Your task to perform on an android device: Go to CNN.com Image 0: 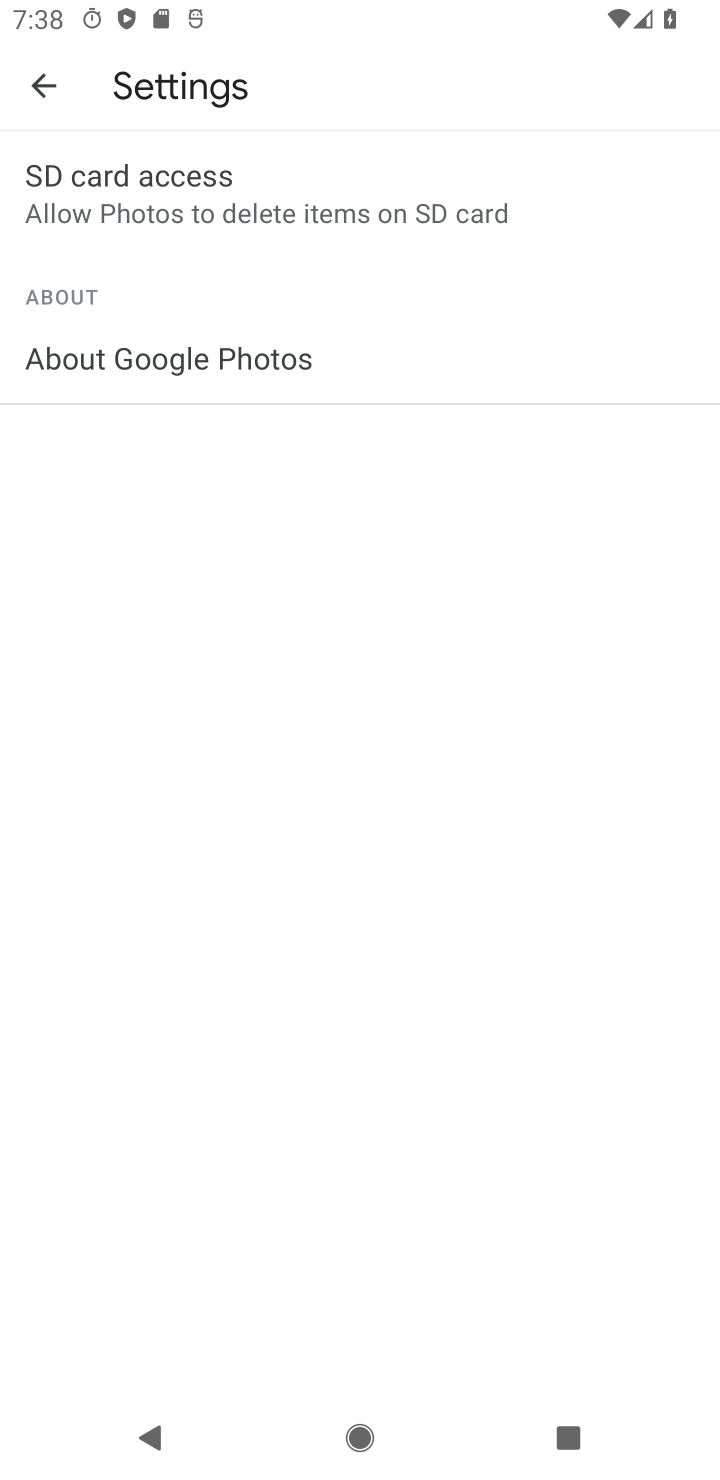
Step 0: press home button
Your task to perform on an android device: Go to CNN.com Image 1: 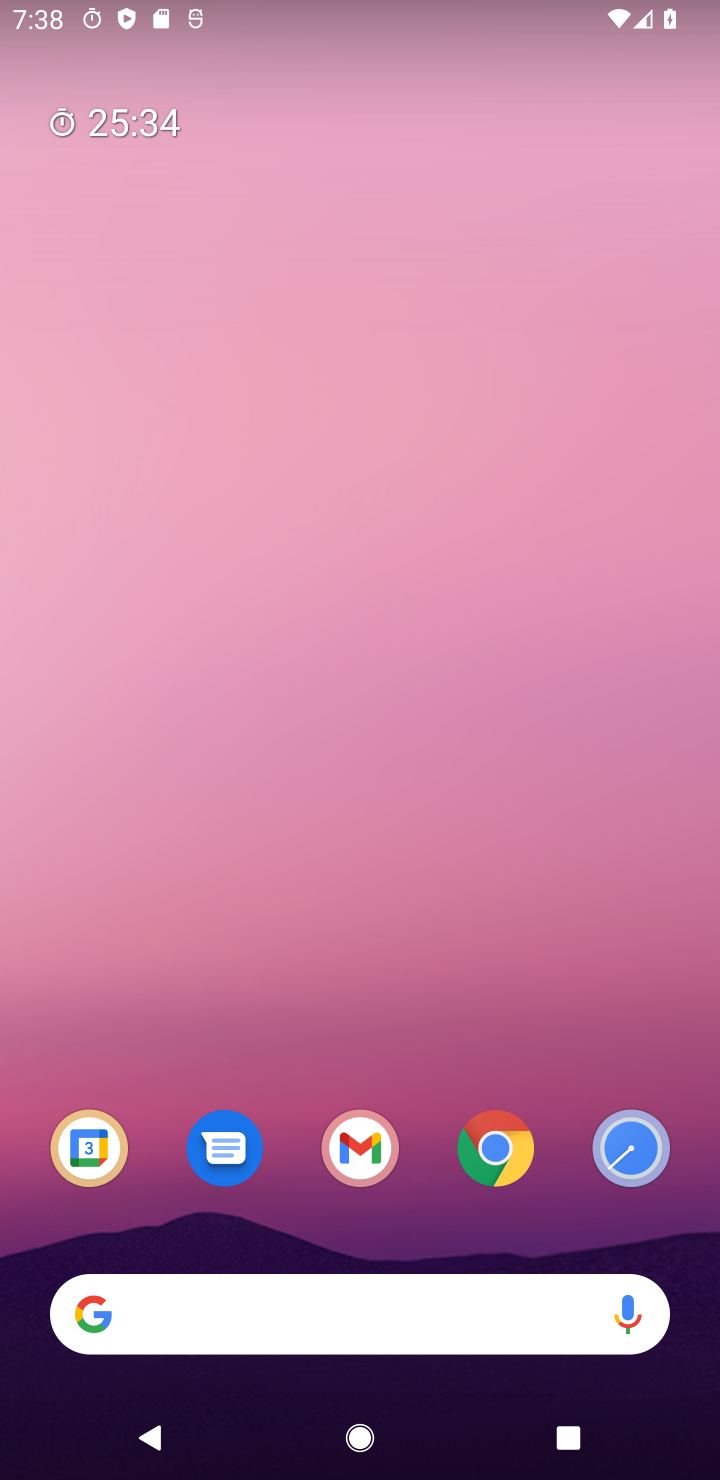
Step 1: click (488, 1164)
Your task to perform on an android device: Go to CNN.com Image 2: 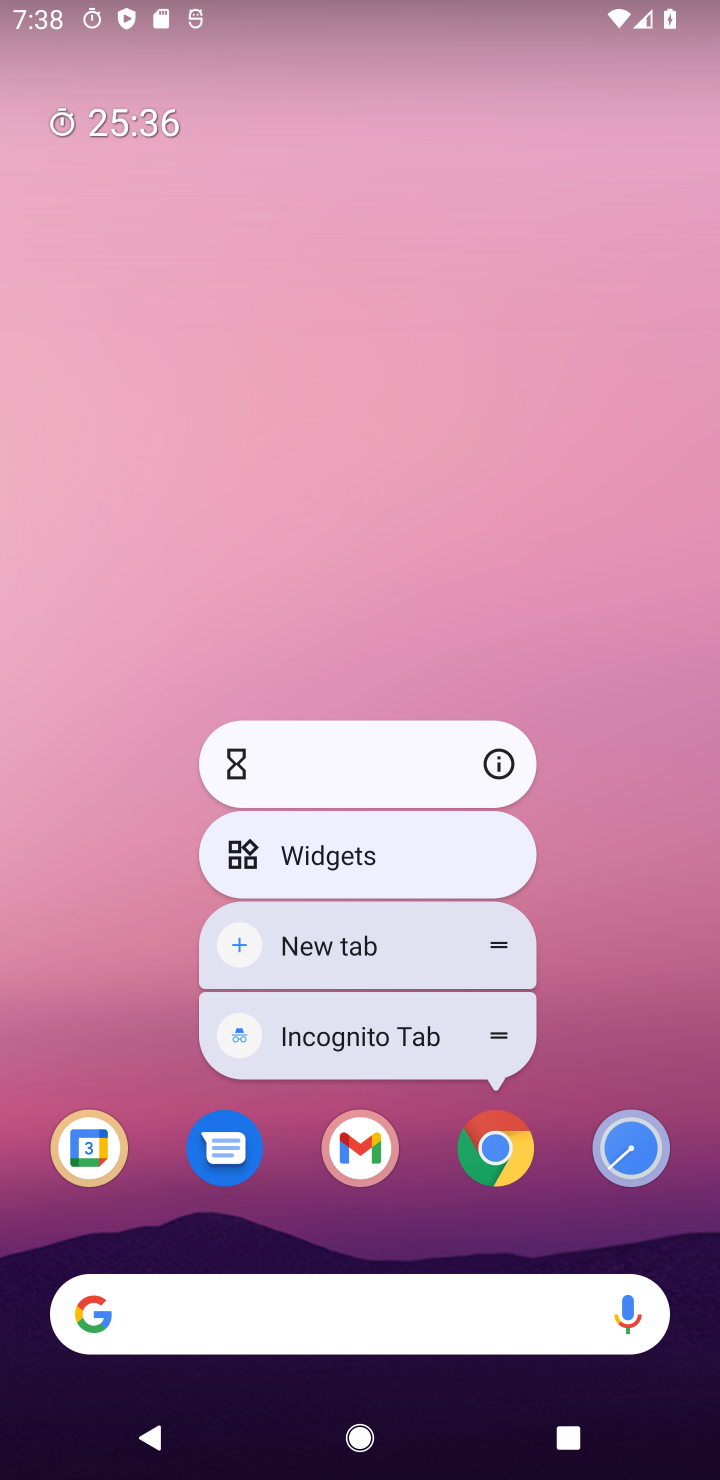
Step 2: click (488, 1164)
Your task to perform on an android device: Go to CNN.com Image 3: 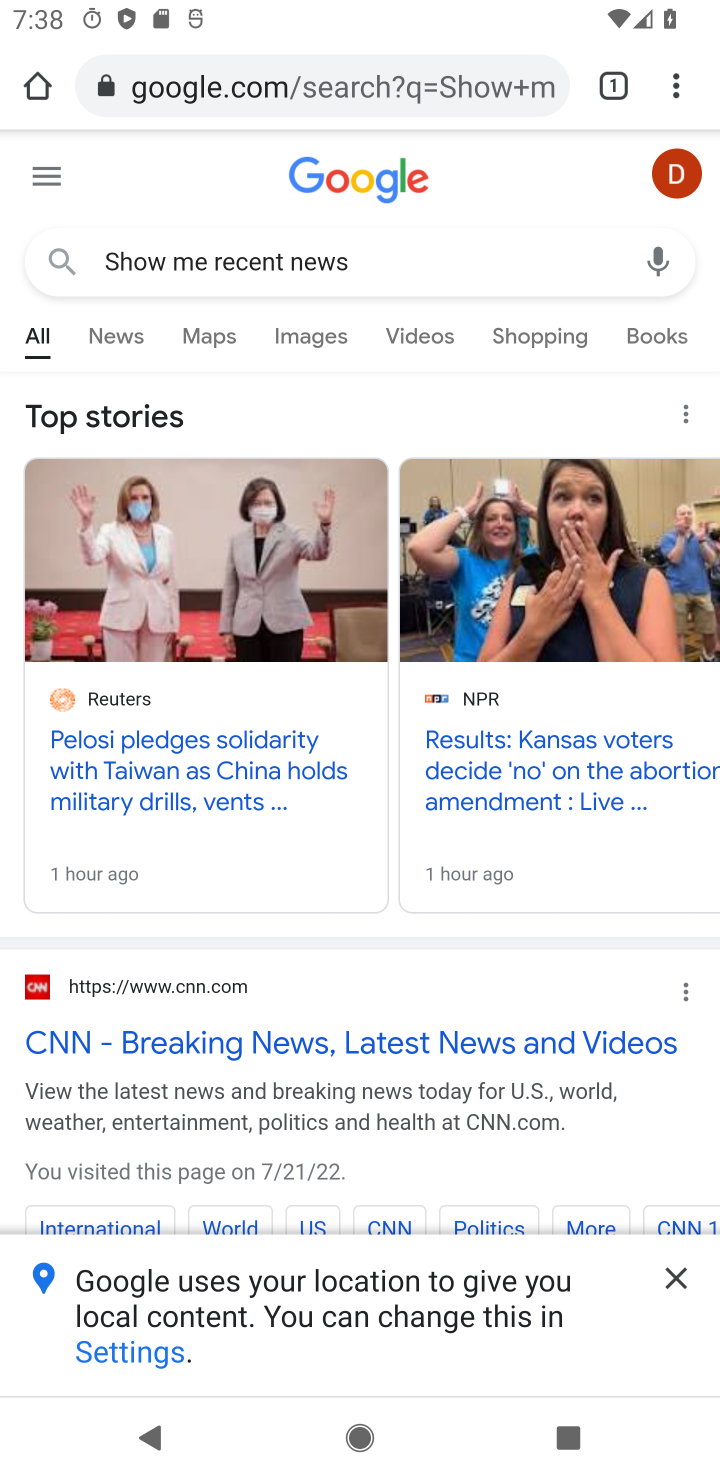
Step 3: click (247, 100)
Your task to perform on an android device: Go to CNN.com Image 4: 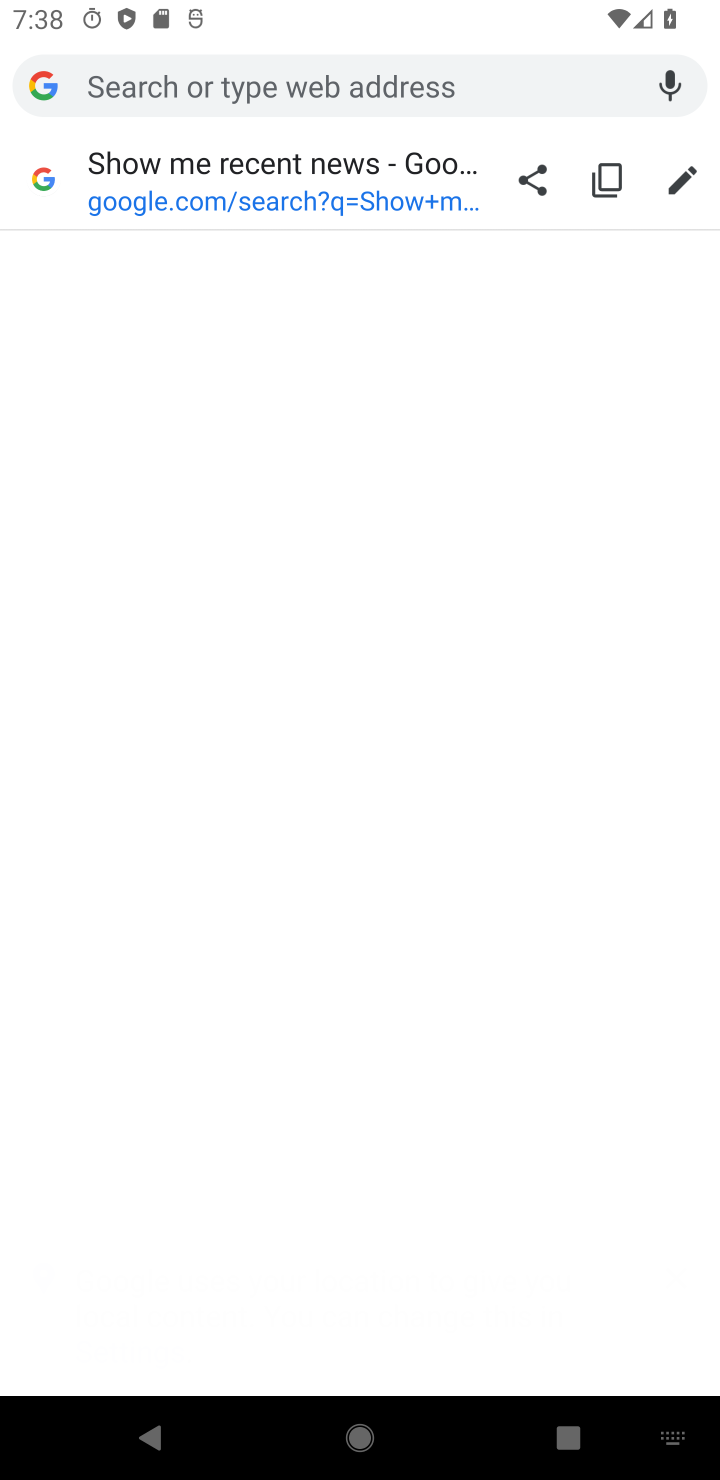
Step 4: type "CNN.com"
Your task to perform on an android device: Go to CNN.com Image 5: 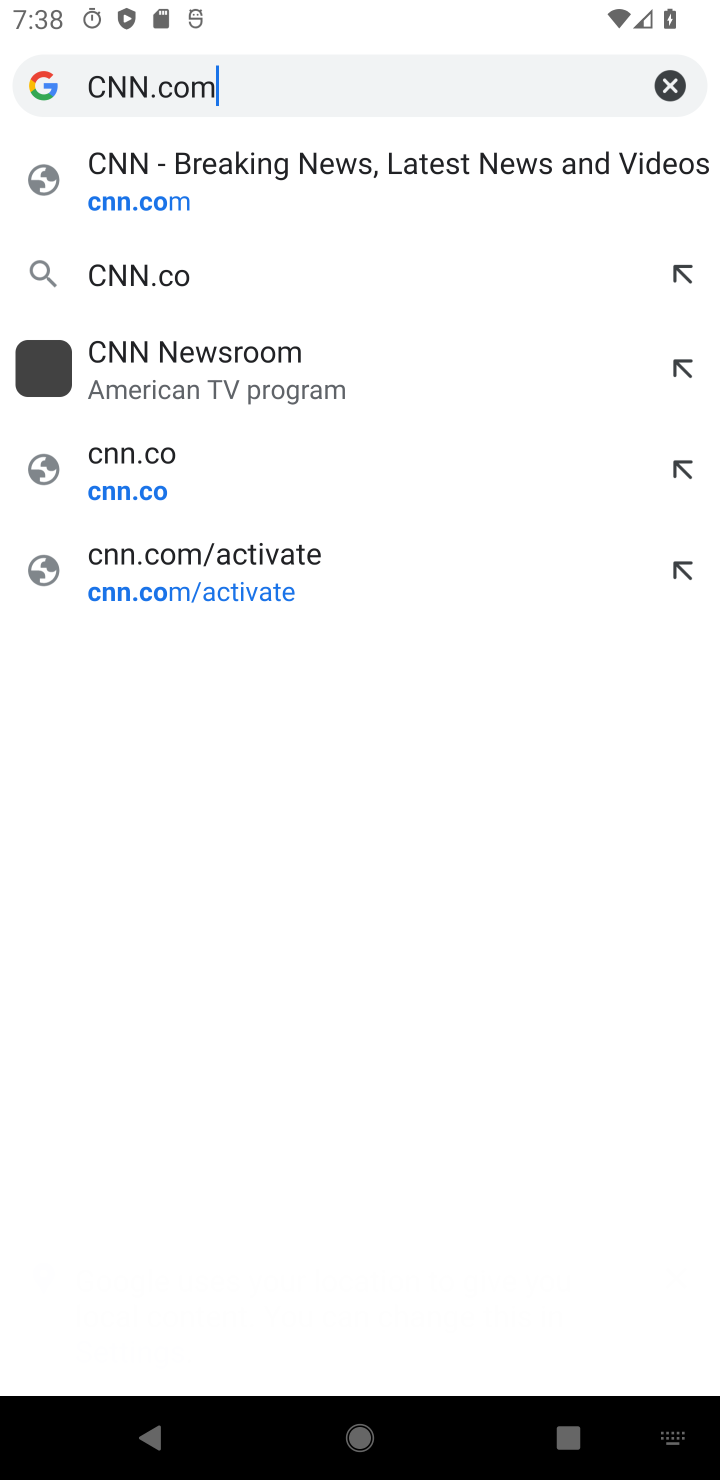
Step 5: type ""
Your task to perform on an android device: Go to CNN.com Image 6: 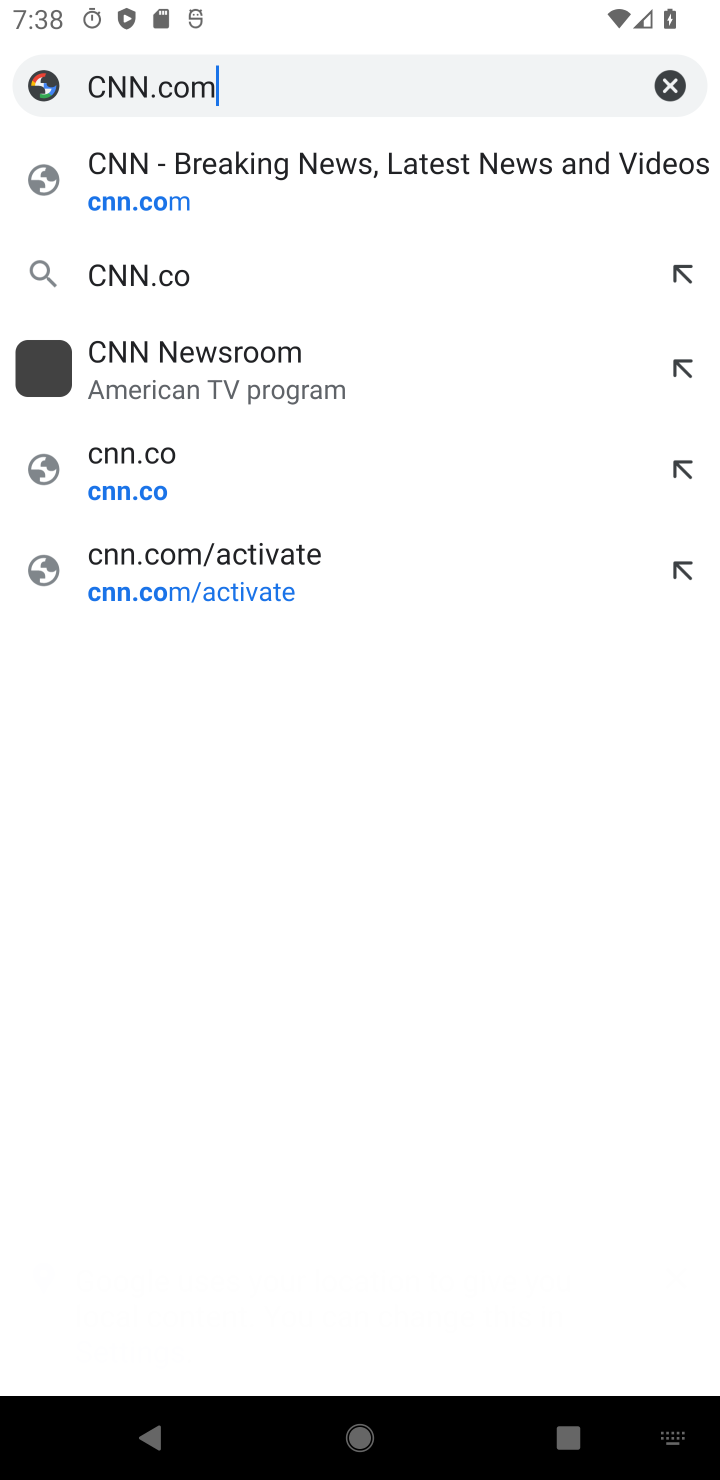
Step 6: click (259, 192)
Your task to perform on an android device: Go to CNN.com Image 7: 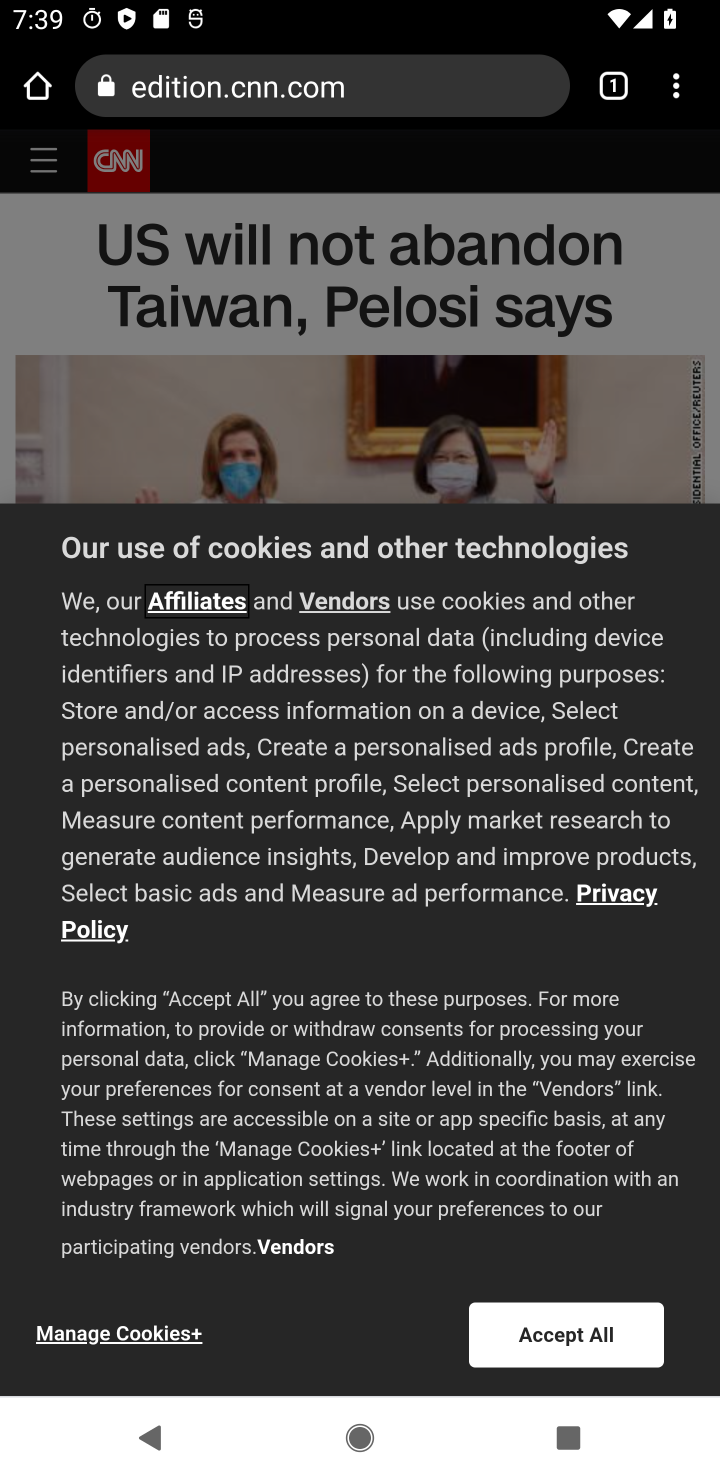
Step 7: task complete